Your task to perform on an android device: turn on the 24-hour format for clock Image 0: 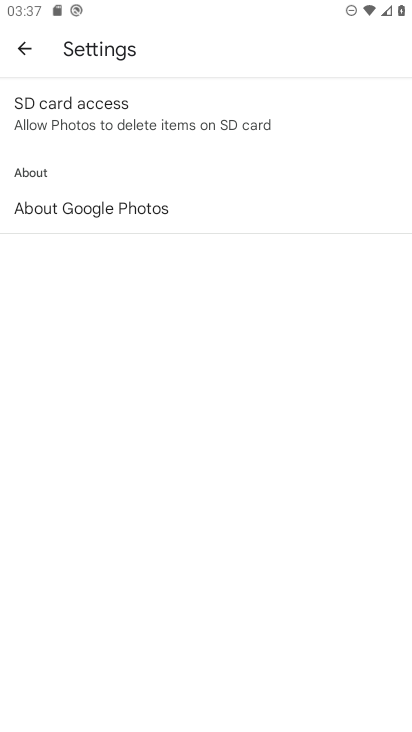
Step 0: press home button
Your task to perform on an android device: turn on the 24-hour format for clock Image 1: 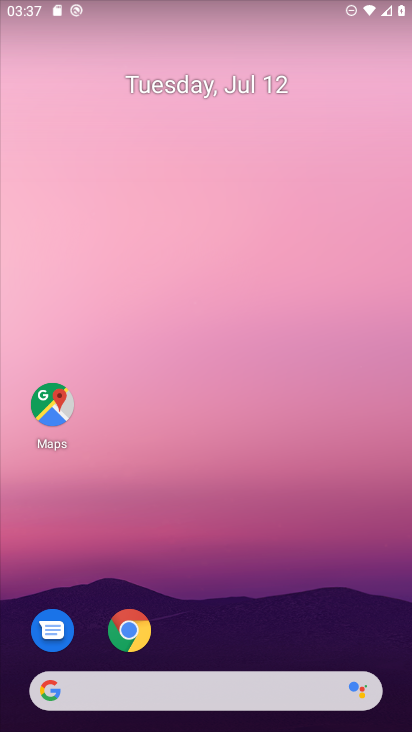
Step 1: drag from (322, 612) to (323, 262)
Your task to perform on an android device: turn on the 24-hour format for clock Image 2: 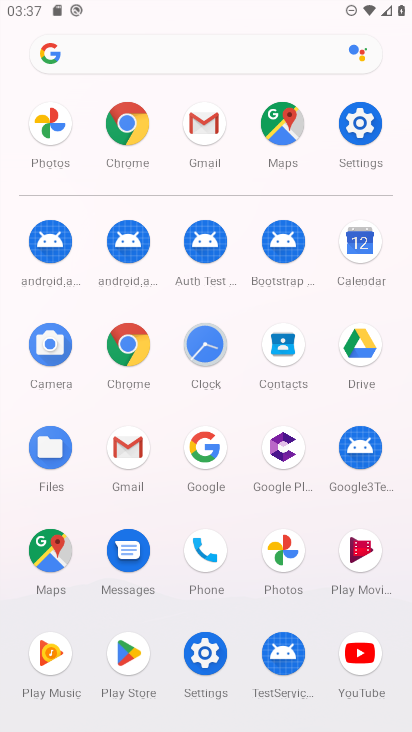
Step 2: click (204, 344)
Your task to perform on an android device: turn on the 24-hour format for clock Image 3: 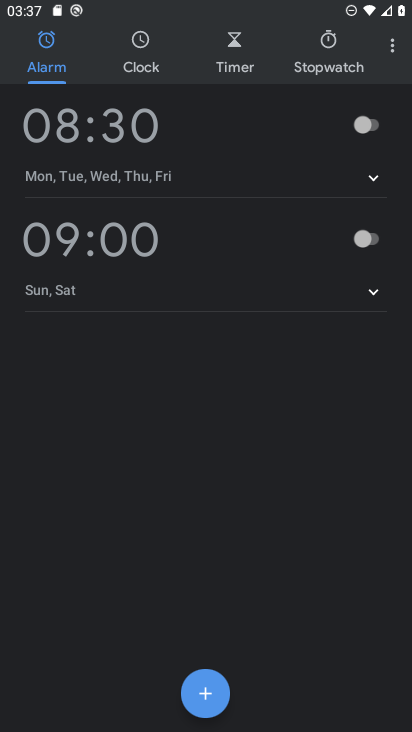
Step 3: click (393, 51)
Your task to perform on an android device: turn on the 24-hour format for clock Image 4: 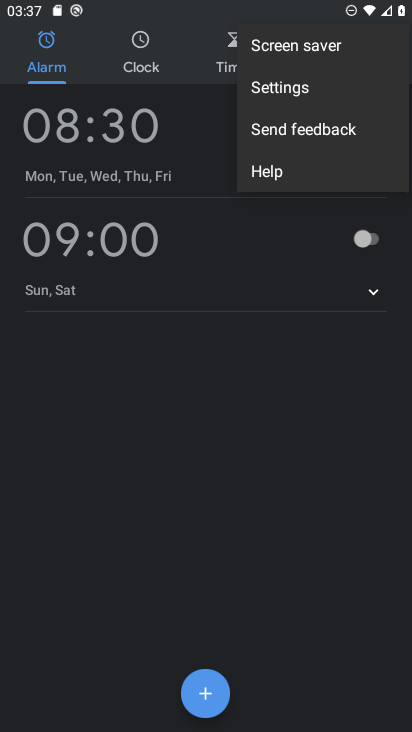
Step 4: click (299, 97)
Your task to perform on an android device: turn on the 24-hour format for clock Image 5: 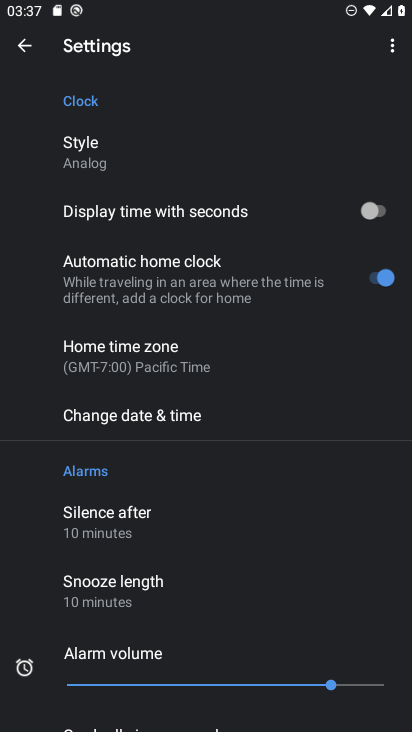
Step 5: click (118, 409)
Your task to perform on an android device: turn on the 24-hour format for clock Image 6: 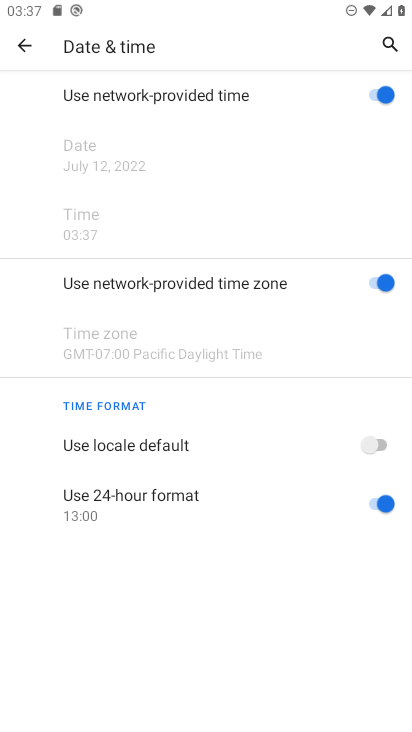
Step 6: task complete